Your task to perform on an android device: Open wifi settings Image 0: 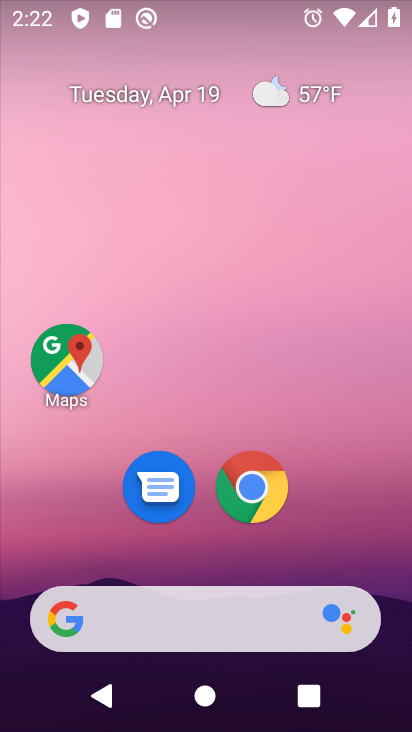
Step 0: drag from (231, 12) to (167, 668)
Your task to perform on an android device: Open wifi settings Image 1: 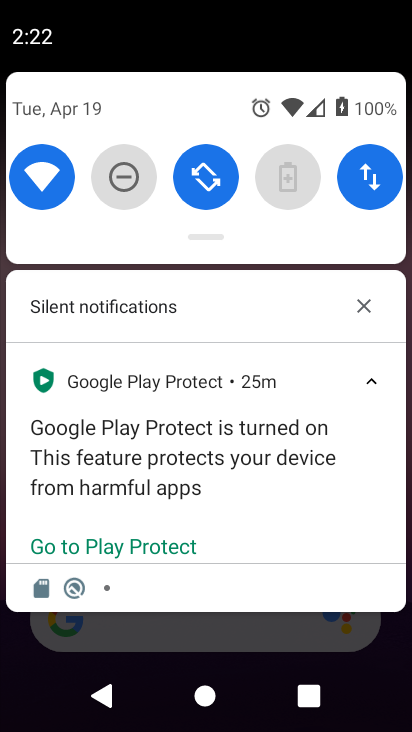
Step 1: click (65, 176)
Your task to perform on an android device: Open wifi settings Image 2: 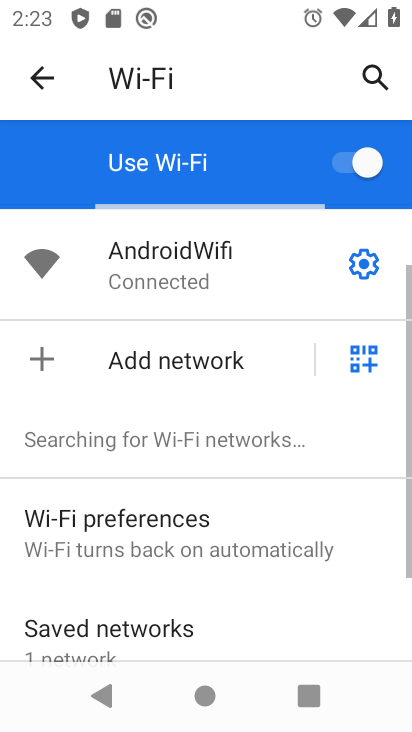
Step 2: task complete